Your task to perform on an android device: turn pop-ups off in chrome Image 0: 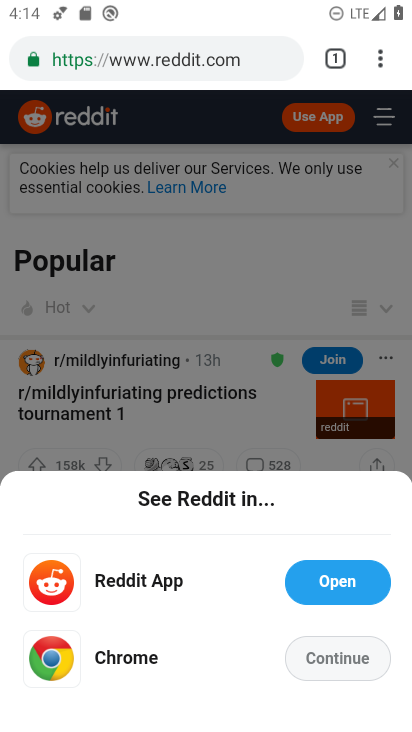
Step 0: click (382, 59)
Your task to perform on an android device: turn pop-ups off in chrome Image 1: 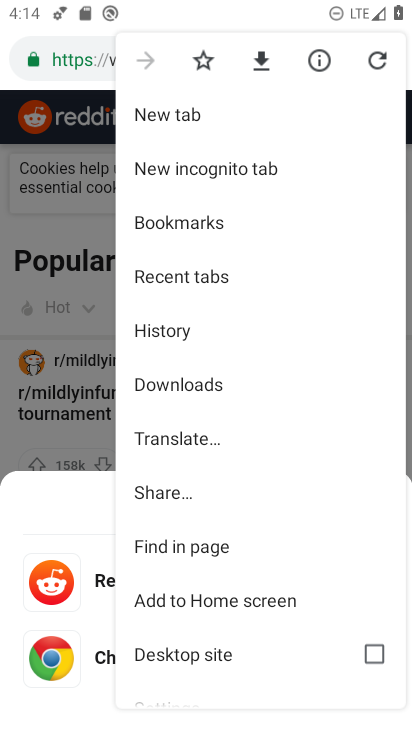
Step 1: drag from (251, 619) to (234, 284)
Your task to perform on an android device: turn pop-ups off in chrome Image 2: 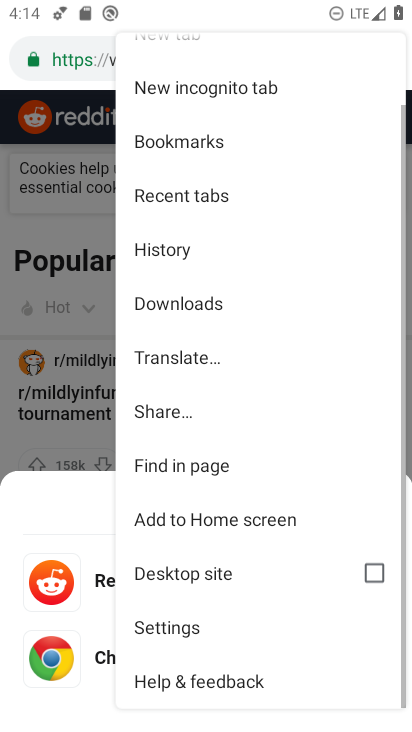
Step 2: click (179, 632)
Your task to perform on an android device: turn pop-ups off in chrome Image 3: 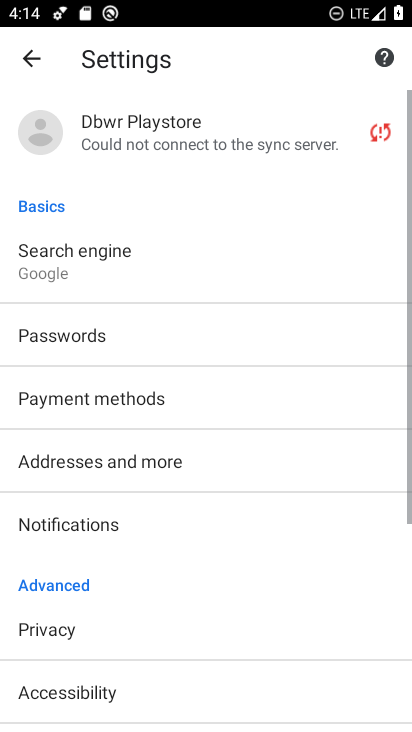
Step 3: drag from (182, 614) to (182, 249)
Your task to perform on an android device: turn pop-ups off in chrome Image 4: 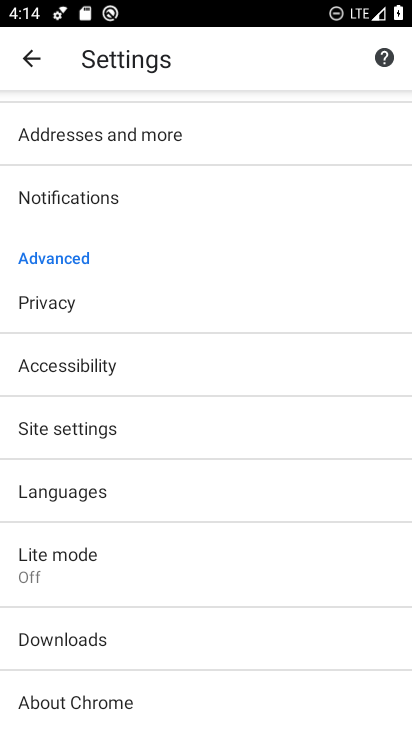
Step 4: click (82, 423)
Your task to perform on an android device: turn pop-ups off in chrome Image 5: 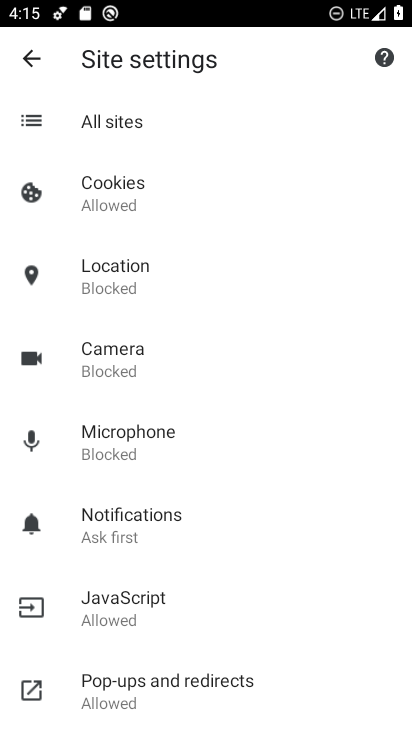
Step 5: click (146, 678)
Your task to perform on an android device: turn pop-ups off in chrome Image 6: 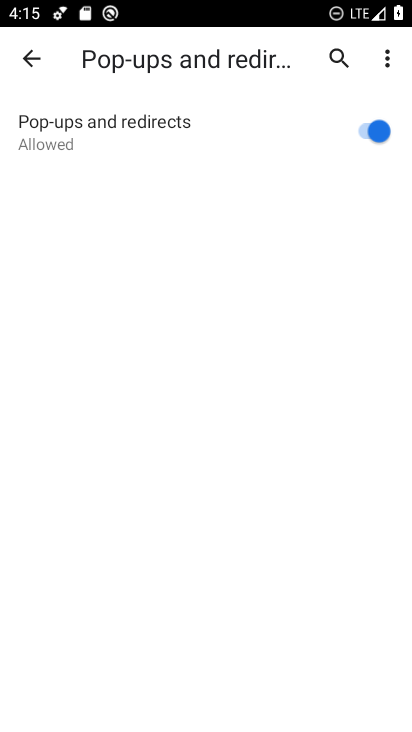
Step 6: click (372, 135)
Your task to perform on an android device: turn pop-ups off in chrome Image 7: 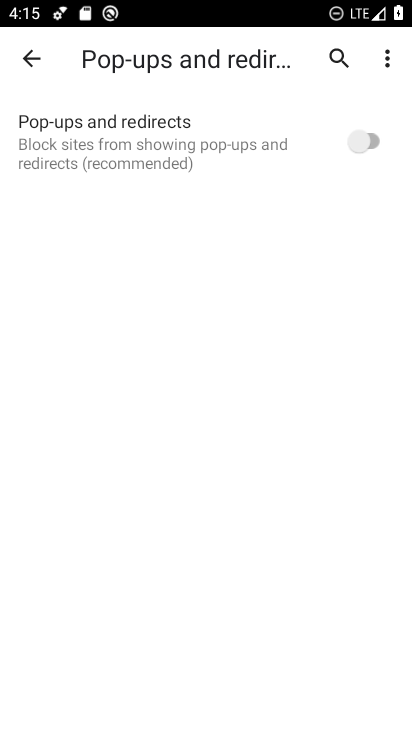
Step 7: task complete